Your task to perform on an android device: Go to display settings Image 0: 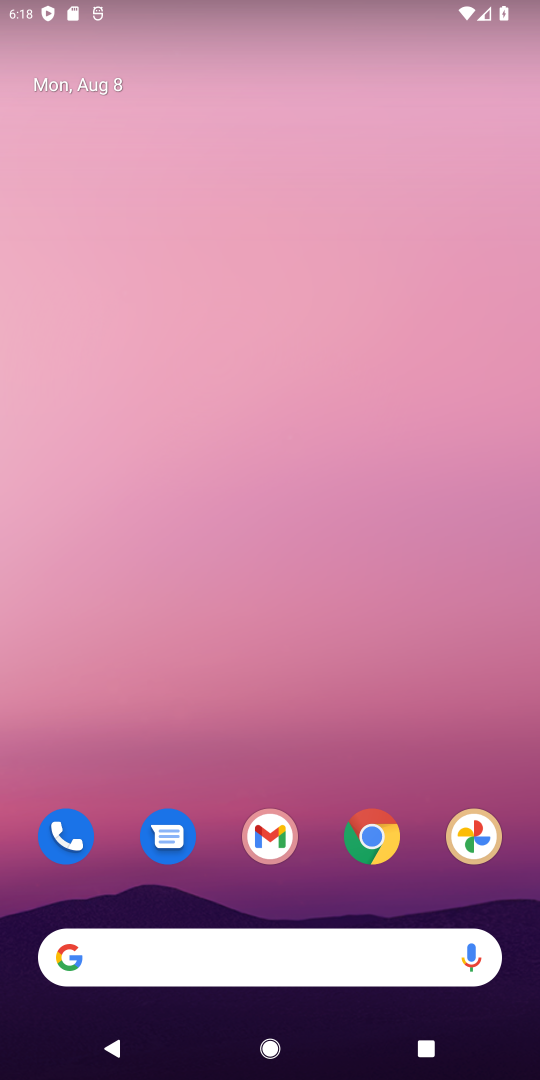
Step 0: drag from (263, 735) to (341, 28)
Your task to perform on an android device: Go to display settings Image 1: 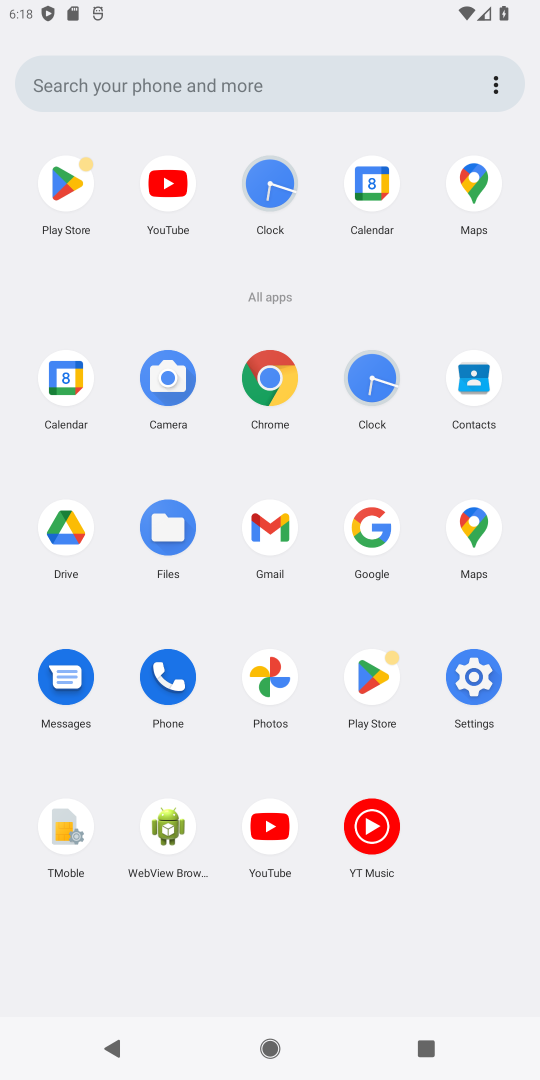
Step 1: click (490, 692)
Your task to perform on an android device: Go to display settings Image 2: 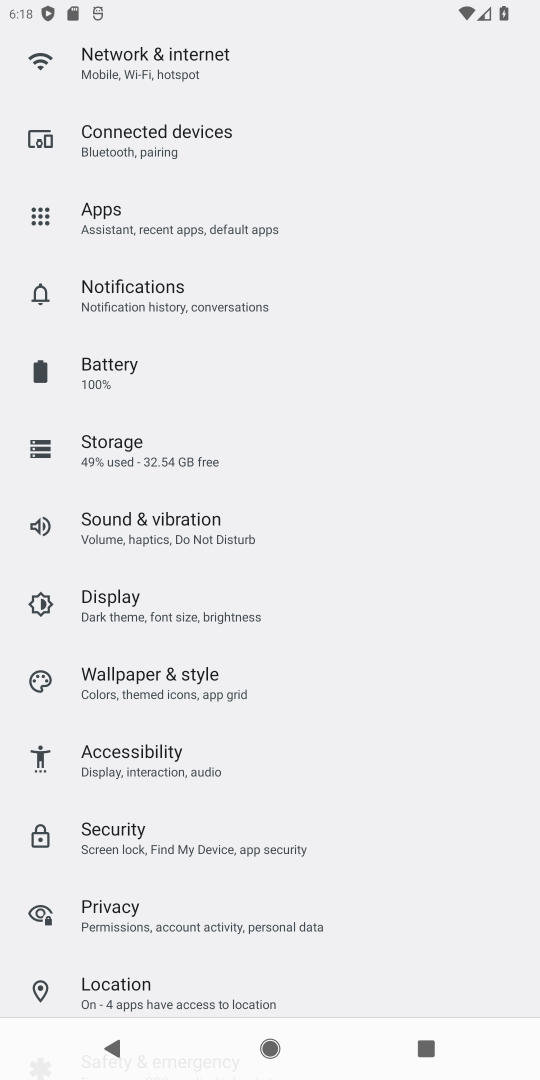
Step 2: drag from (252, 176) to (306, 407)
Your task to perform on an android device: Go to display settings Image 3: 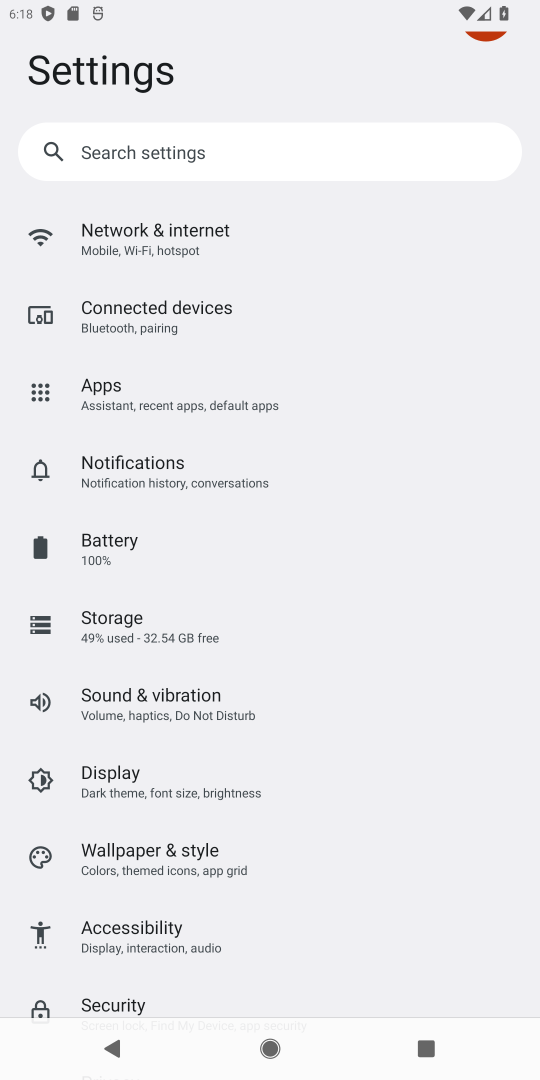
Step 3: click (154, 793)
Your task to perform on an android device: Go to display settings Image 4: 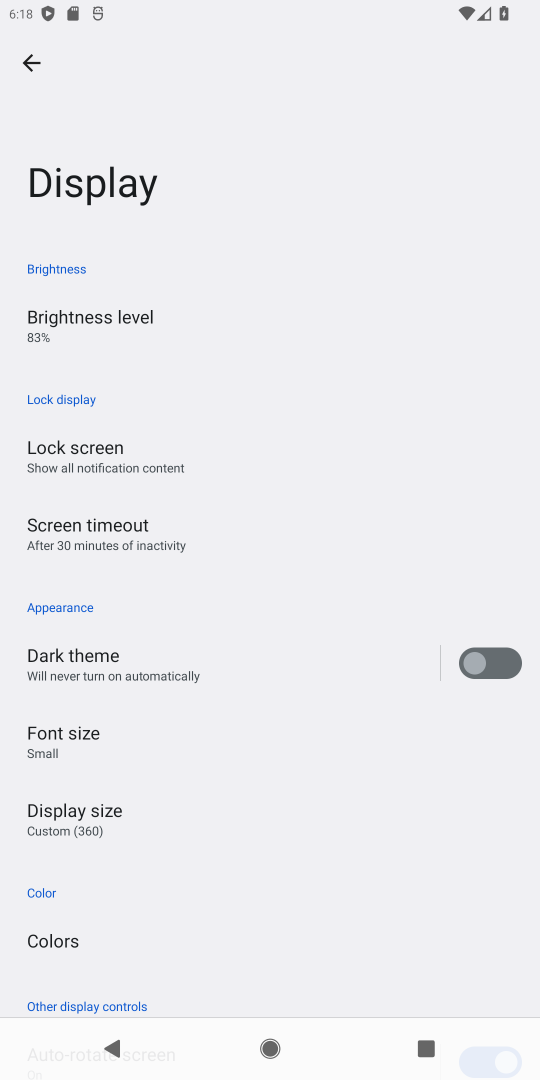
Step 4: task complete